Your task to perform on an android device: open chrome and create a bookmark for the current page Image 0: 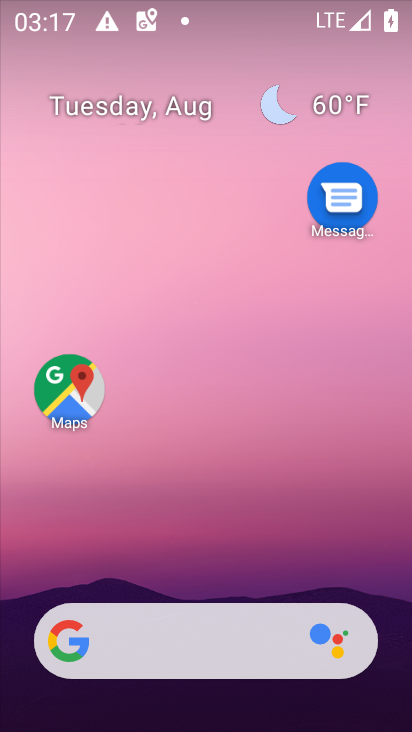
Step 0: drag from (185, 565) to (158, 135)
Your task to perform on an android device: open chrome and create a bookmark for the current page Image 1: 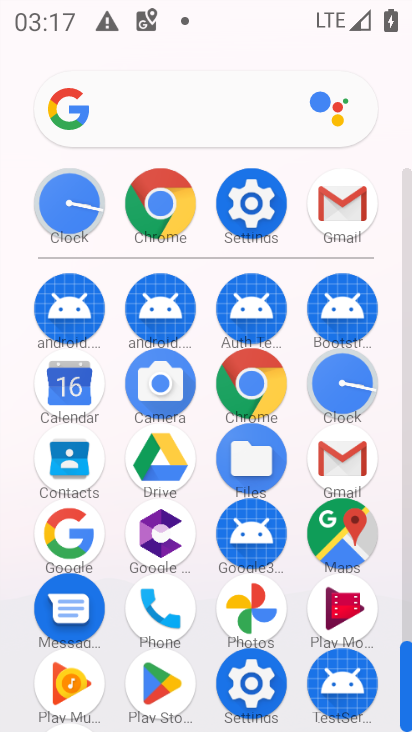
Step 1: click (179, 192)
Your task to perform on an android device: open chrome and create a bookmark for the current page Image 2: 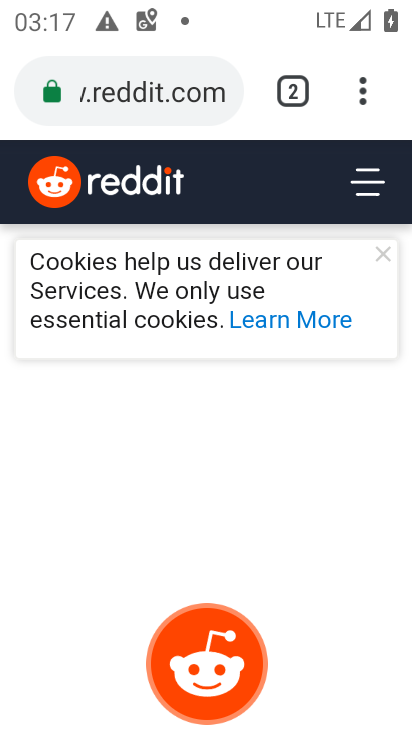
Step 2: click (378, 92)
Your task to perform on an android device: open chrome and create a bookmark for the current page Image 3: 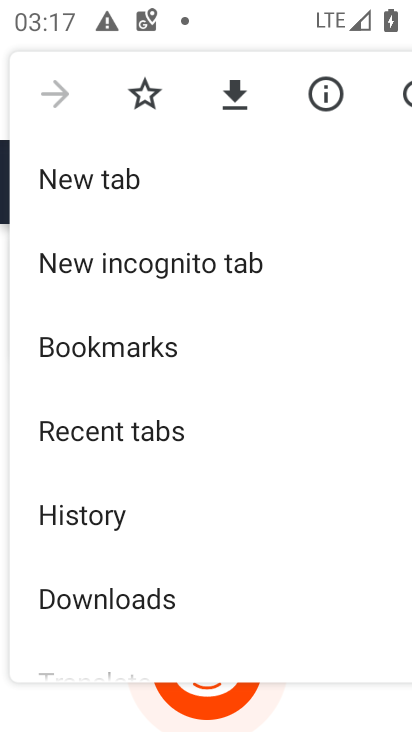
Step 3: task complete